Your task to perform on an android device: Open network settings Image 0: 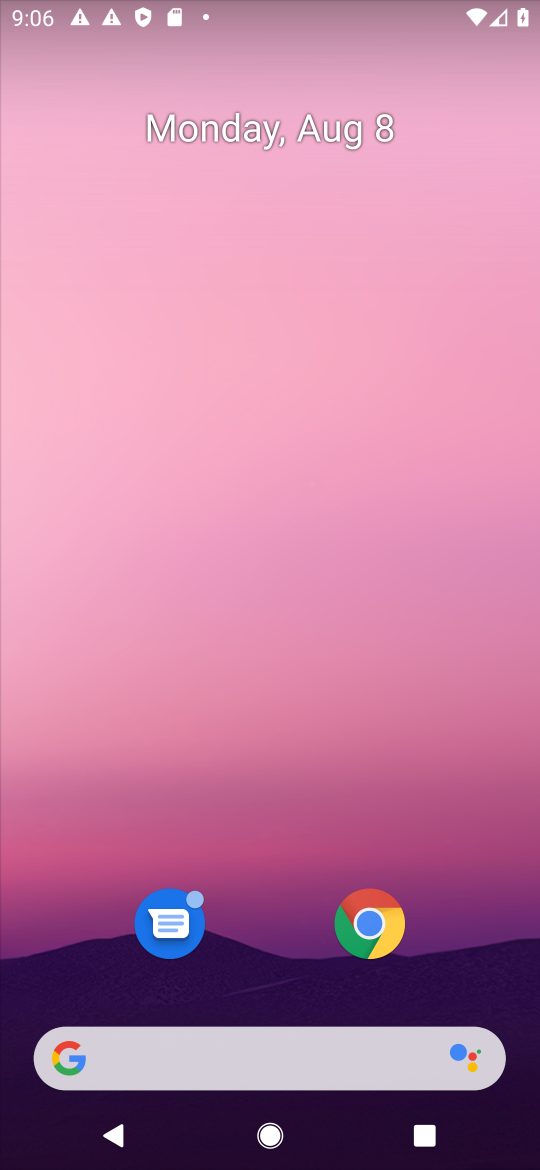
Step 0: drag from (44, 1085) to (458, 238)
Your task to perform on an android device: Open network settings Image 1: 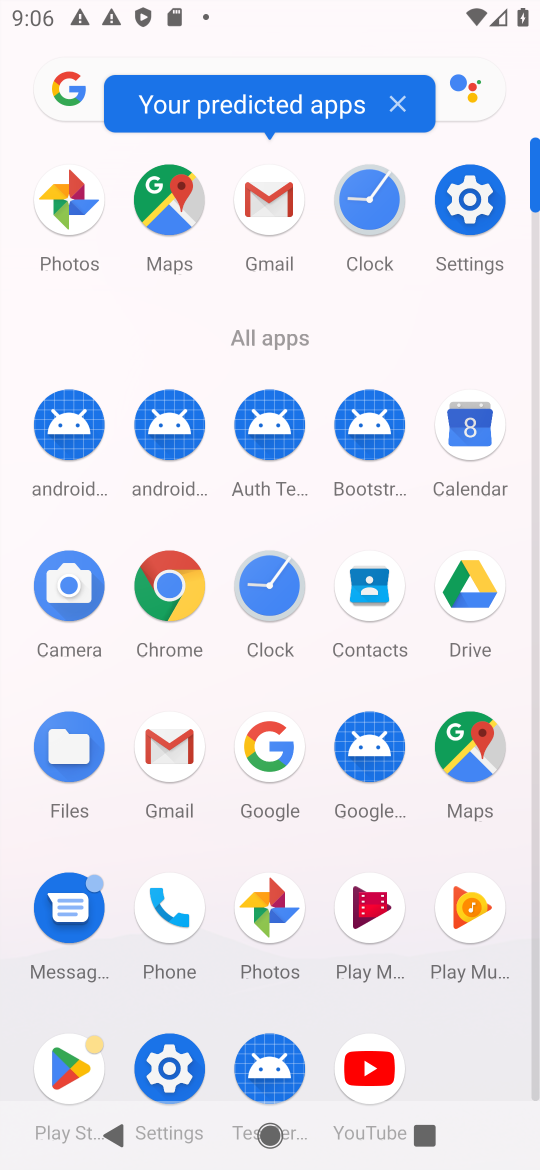
Step 1: click (168, 1077)
Your task to perform on an android device: Open network settings Image 2: 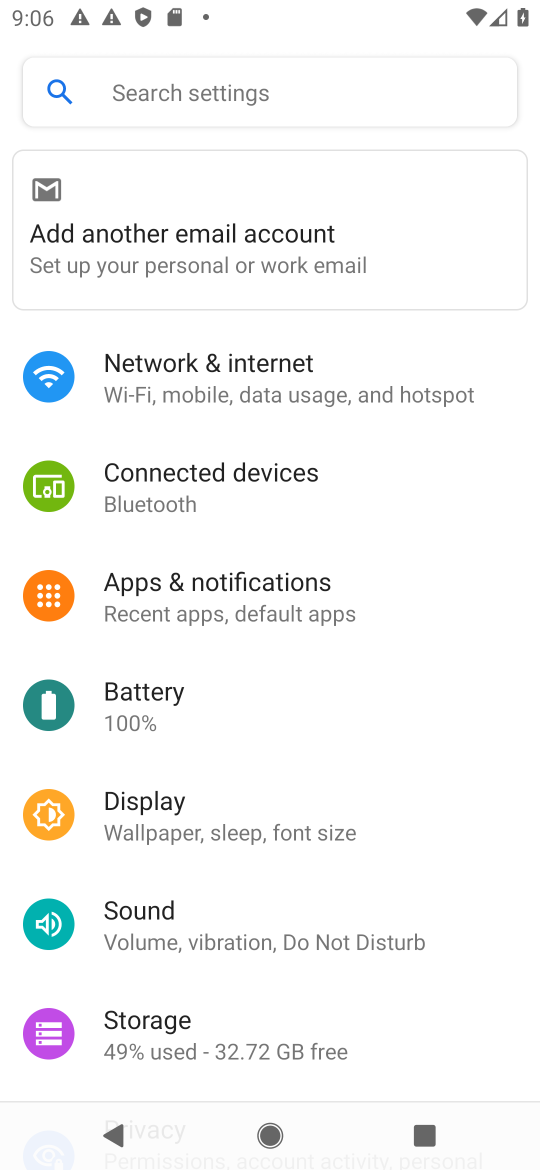
Step 2: click (204, 378)
Your task to perform on an android device: Open network settings Image 3: 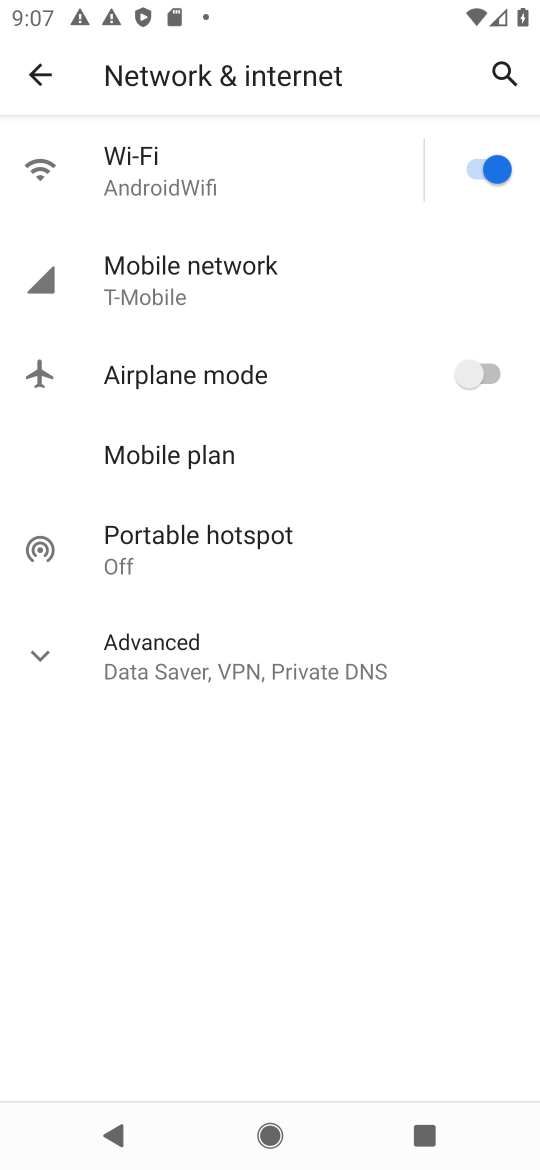
Step 3: task complete